Your task to perform on an android device: Open maps Image 0: 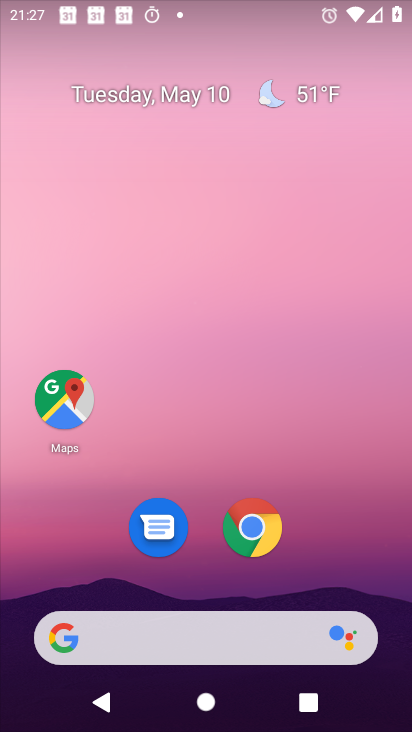
Step 0: click (53, 415)
Your task to perform on an android device: Open maps Image 1: 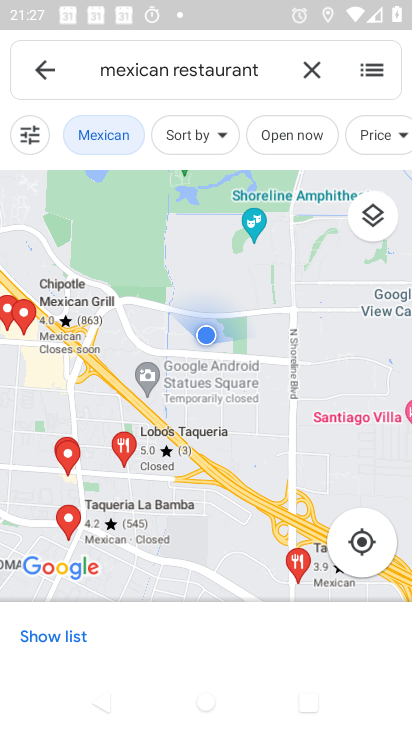
Step 1: task complete